Your task to perform on an android device: Is it going to rain tomorrow? Image 0: 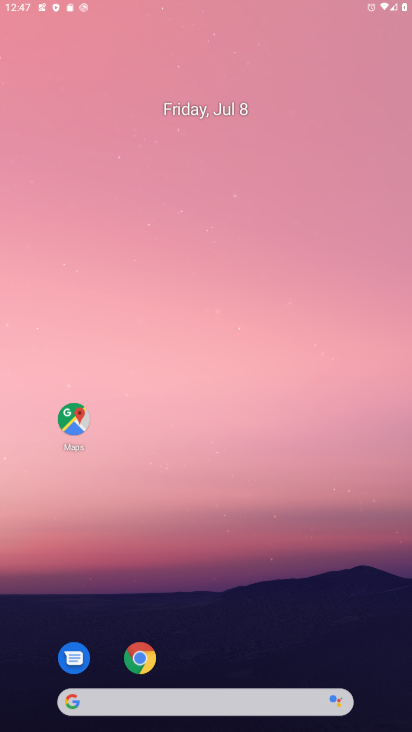
Step 0: press home button
Your task to perform on an android device: Is it going to rain tomorrow? Image 1: 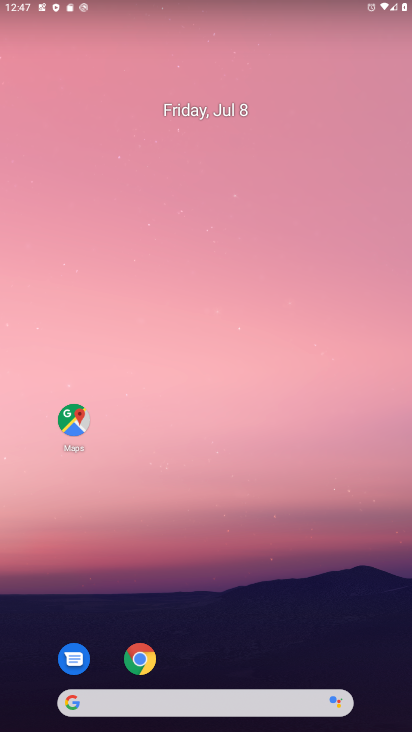
Step 1: click (214, 699)
Your task to perform on an android device: Is it going to rain tomorrow? Image 2: 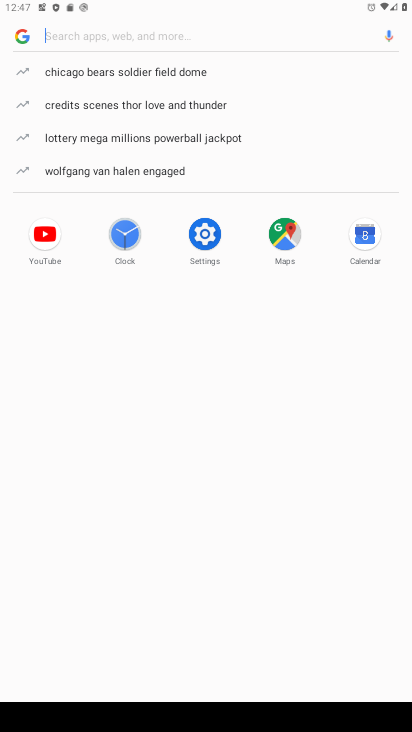
Step 2: type "is it going to rain tomoirrow"
Your task to perform on an android device: Is it going to rain tomorrow? Image 3: 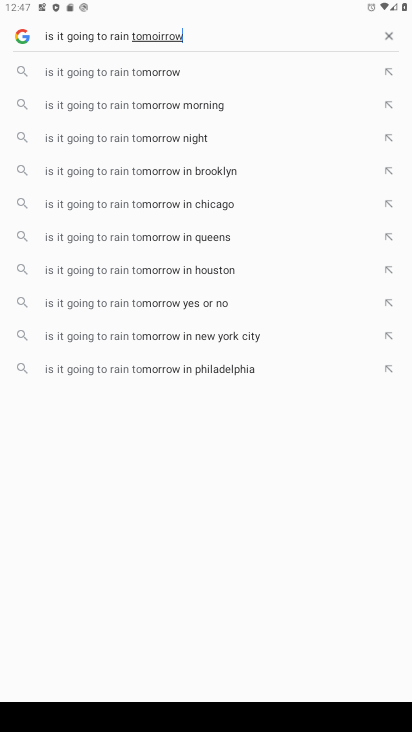
Step 3: click (115, 77)
Your task to perform on an android device: Is it going to rain tomorrow? Image 4: 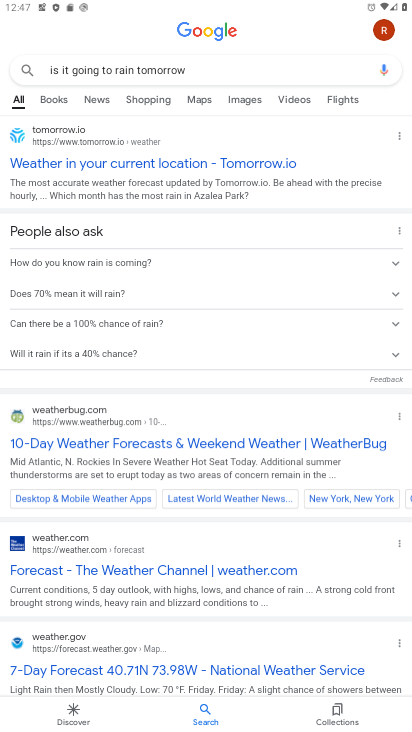
Step 4: click (102, 156)
Your task to perform on an android device: Is it going to rain tomorrow? Image 5: 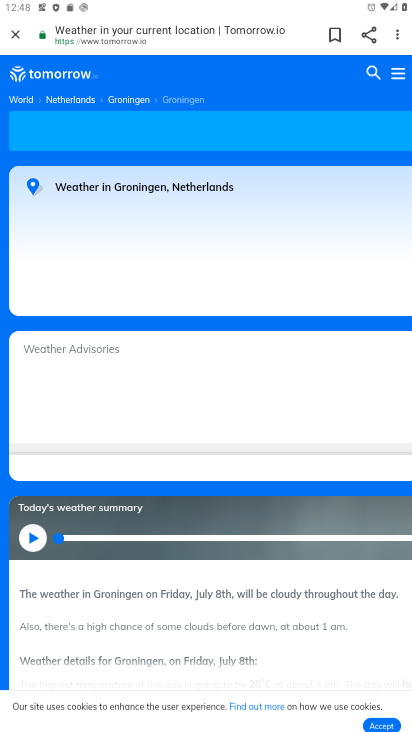
Step 5: task complete